Your task to perform on an android device: see sites visited before in the chrome app Image 0: 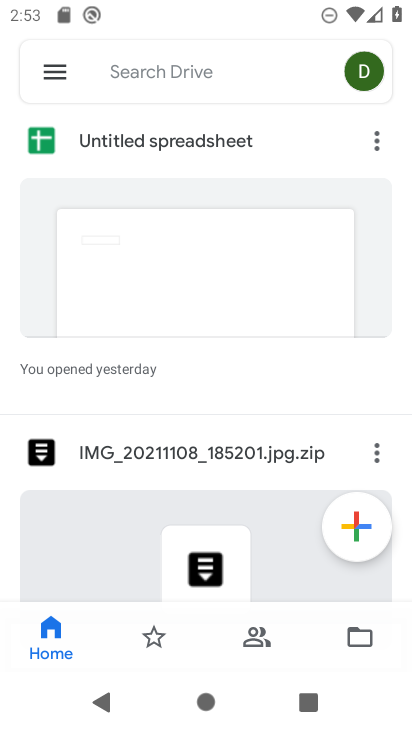
Step 0: press back button
Your task to perform on an android device: see sites visited before in the chrome app Image 1: 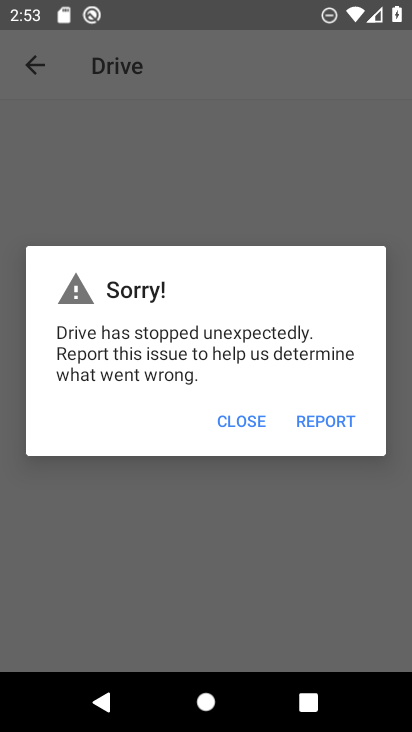
Step 1: press home button
Your task to perform on an android device: see sites visited before in the chrome app Image 2: 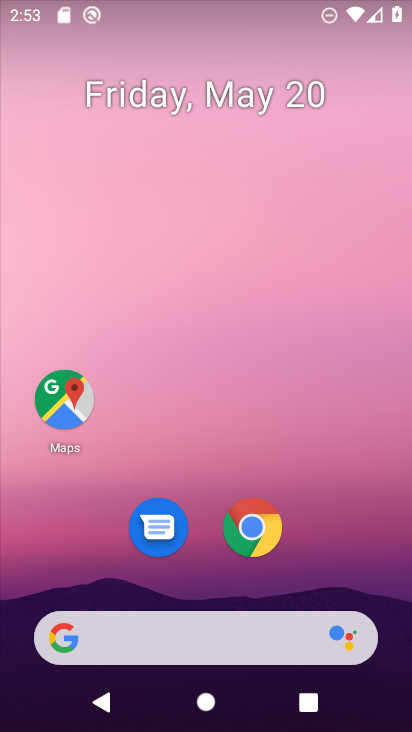
Step 2: click (245, 523)
Your task to perform on an android device: see sites visited before in the chrome app Image 3: 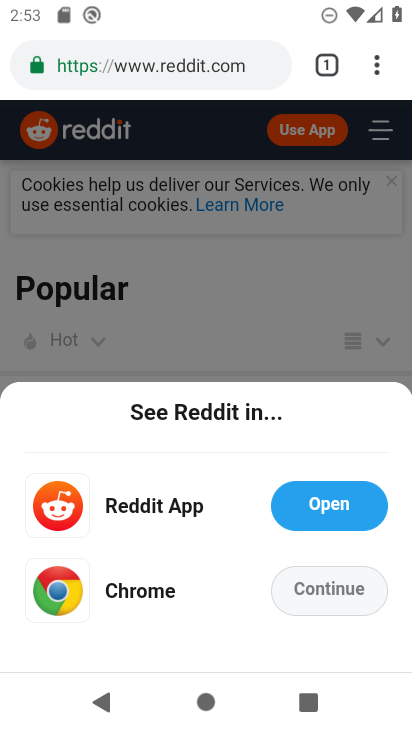
Step 3: task complete